Your task to perform on an android device: clear all cookies in the chrome app Image 0: 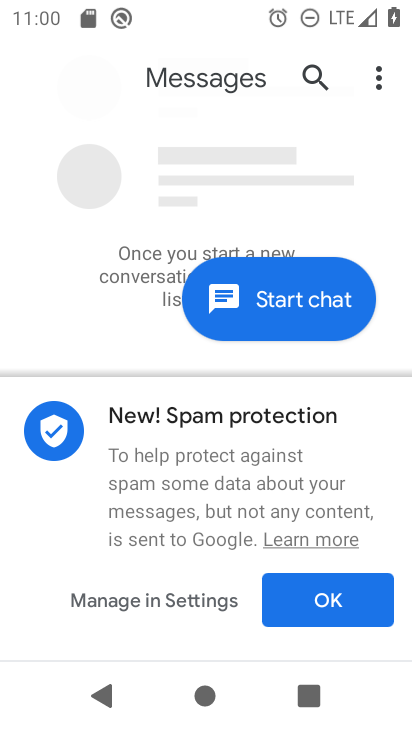
Step 0: press home button
Your task to perform on an android device: clear all cookies in the chrome app Image 1: 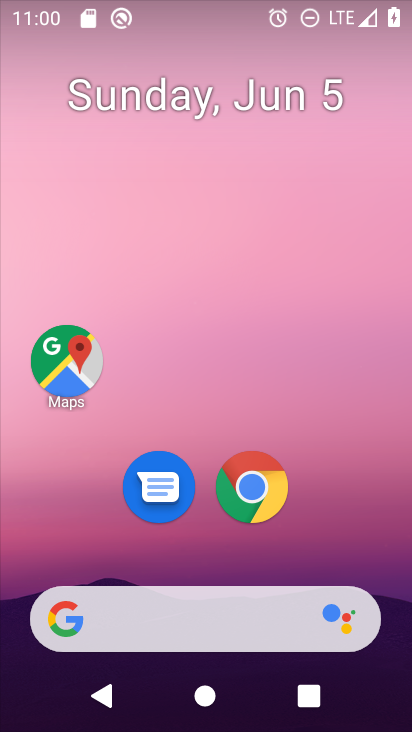
Step 1: click (251, 487)
Your task to perform on an android device: clear all cookies in the chrome app Image 2: 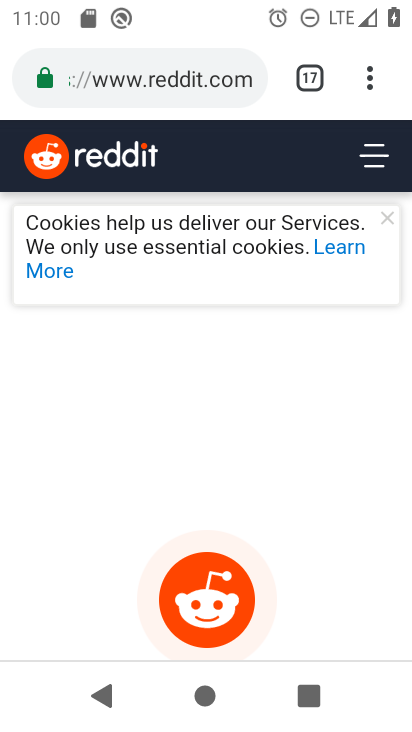
Step 2: click (360, 79)
Your task to perform on an android device: clear all cookies in the chrome app Image 3: 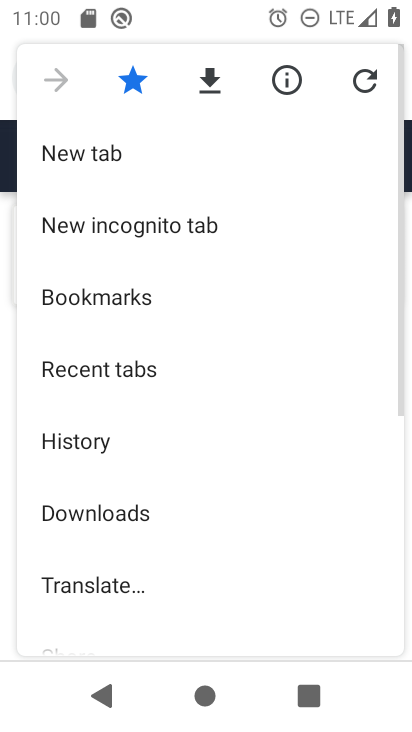
Step 3: drag from (127, 577) to (147, 253)
Your task to perform on an android device: clear all cookies in the chrome app Image 4: 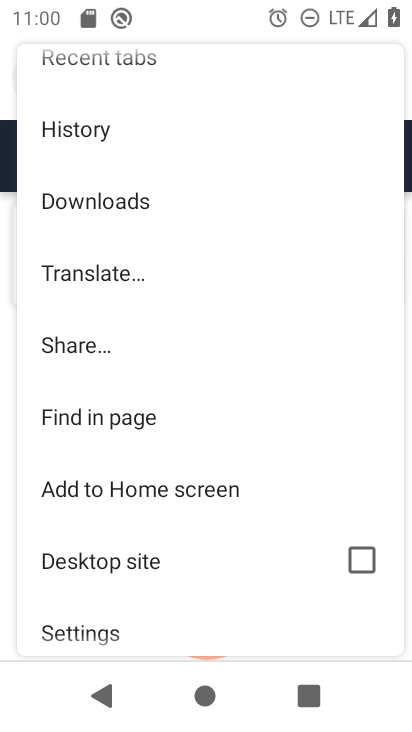
Step 4: click (71, 617)
Your task to perform on an android device: clear all cookies in the chrome app Image 5: 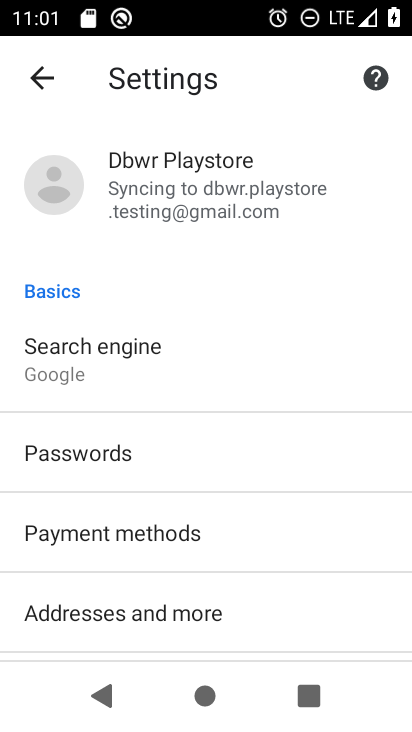
Step 5: drag from (194, 558) to (179, 347)
Your task to perform on an android device: clear all cookies in the chrome app Image 6: 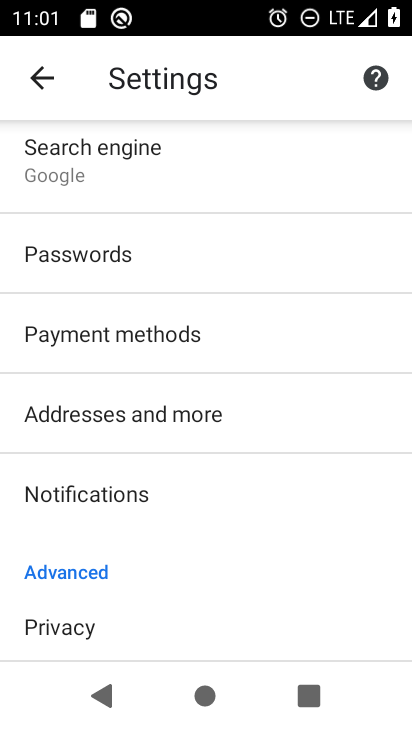
Step 6: drag from (122, 627) to (155, 433)
Your task to perform on an android device: clear all cookies in the chrome app Image 7: 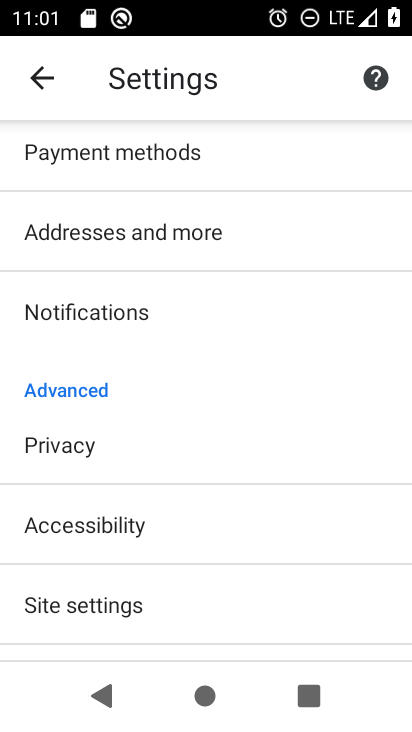
Step 7: click (107, 451)
Your task to perform on an android device: clear all cookies in the chrome app Image 8: 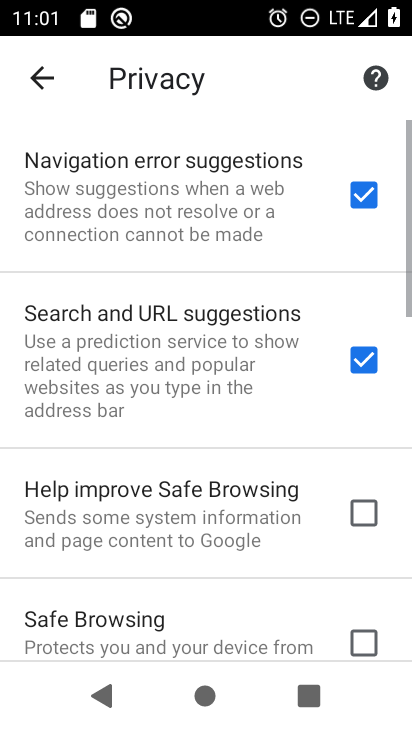
Step 8: drag from (203, 600) to (215, 191)
Your task to perform on an android device: clear all cookies in the chrome app Image 9: 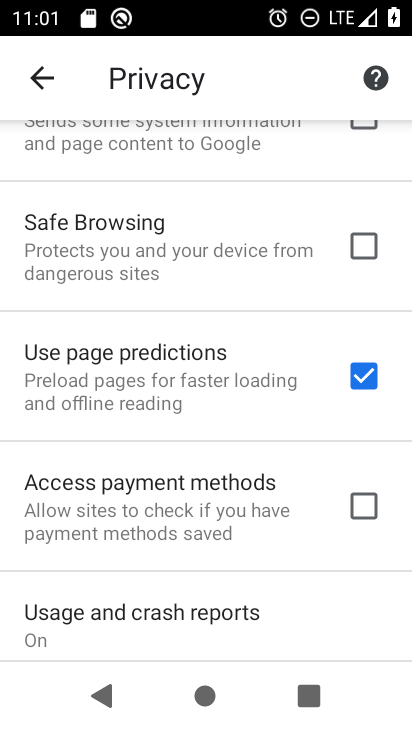
Step 9: drag from (215, 553) to (201, 179)
Your task to perform on an android device: clear all cookies in the chrome app Image 10: 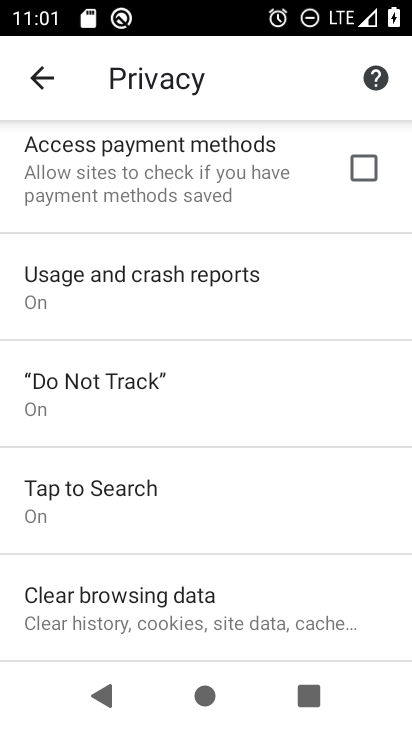
Step 10: drag from (211, 500) to (176, 212)
Your task to perform on an android device: clear all cookies in the chrome app Image 11: 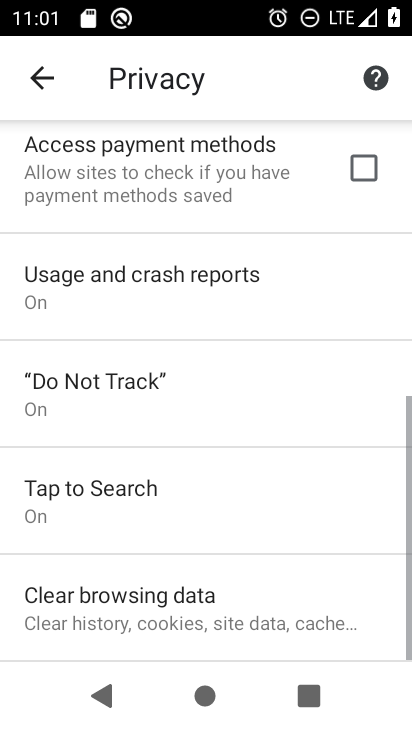
Step 11: click (162, 596)
Your task to perform on an android device: clear all cookies in the chrome app Image 12: 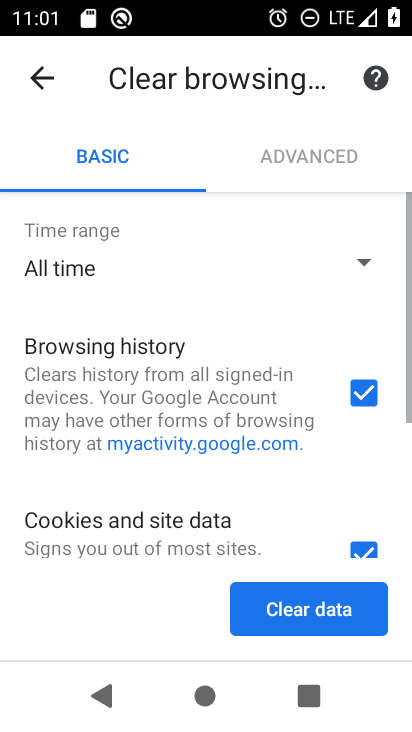
Step 12: click (316, 602)
Your task to perform on an android device: clear all cookies in the chrome app Image 13: 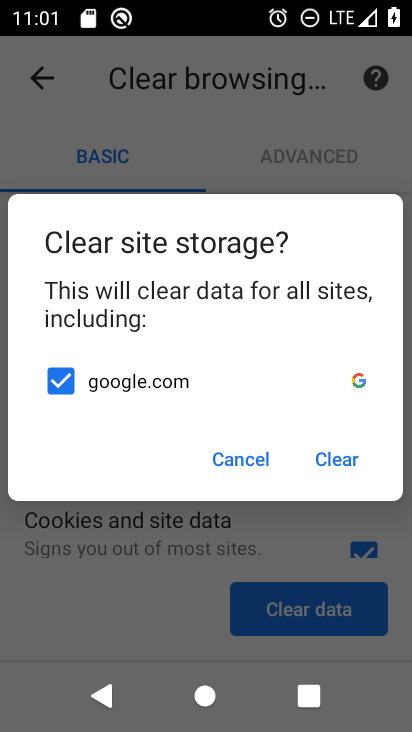
Step 13: click (335, 459)
Your task to perform on an android device: clear all cookies in the chrome app Image 14: 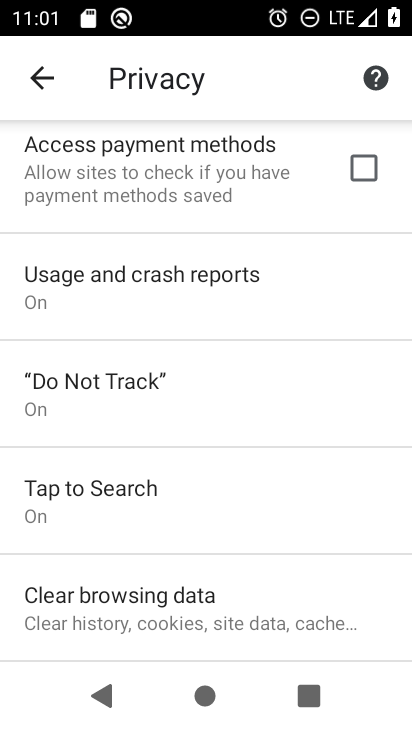
Step 14: task complete